Your task to perform on an android device: find snoozed emails in the gmail app Image 0: 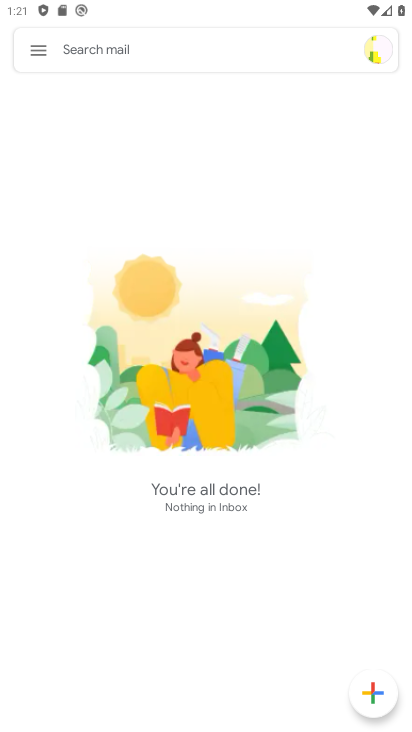
Step 0: click (29, 43)
Your task to perform on an android device: find snoozed emails in the gmail app Image 1: 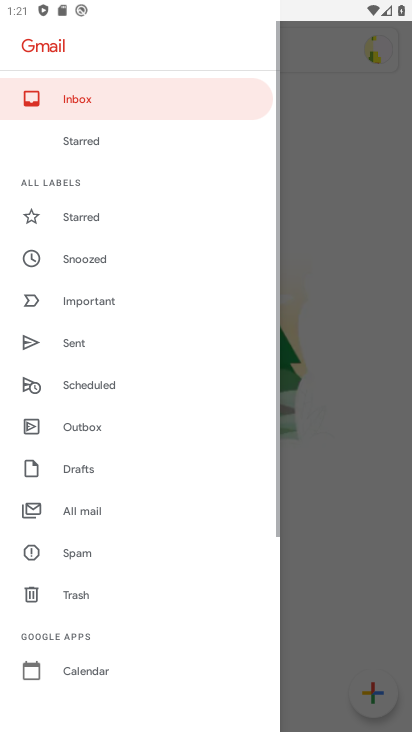
Step 1: click (98, 259)
Your task to perform on an android device: find snoozed emails in the gmail app Image 2: 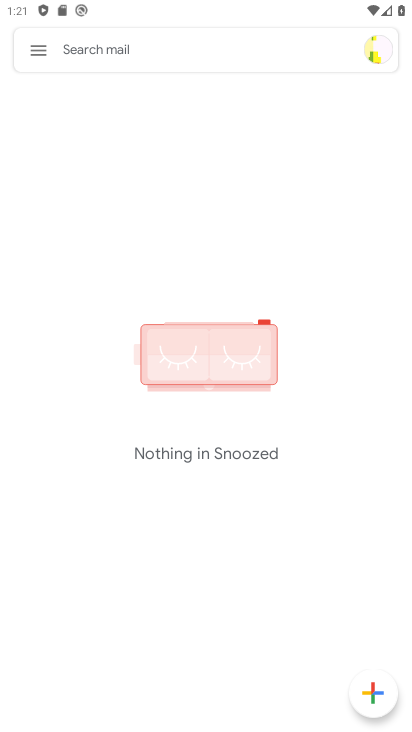
Step 2: task complete